Your task to perform on an android device: set an alarm Image 0: 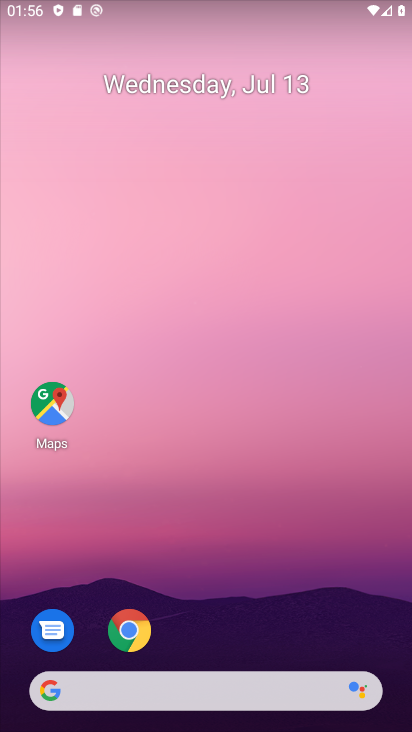
Step 0: drag from (239, 643) to (178, 219)
Your task to perform on an android device: set an alarm Image 1: 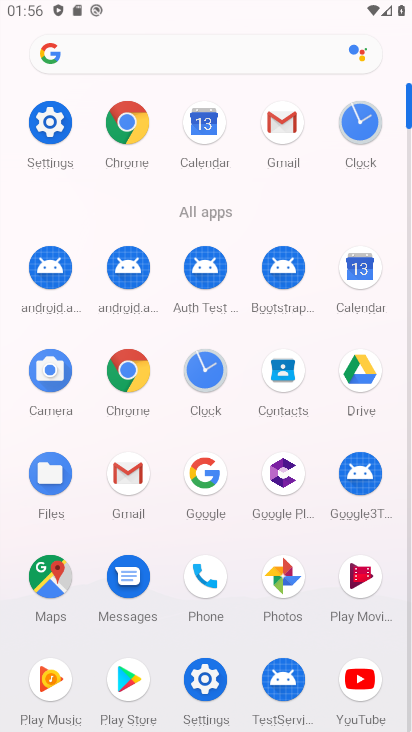
Step 1: click (203, 356)
Your task to perform on an android device: set an alarm Image 2: 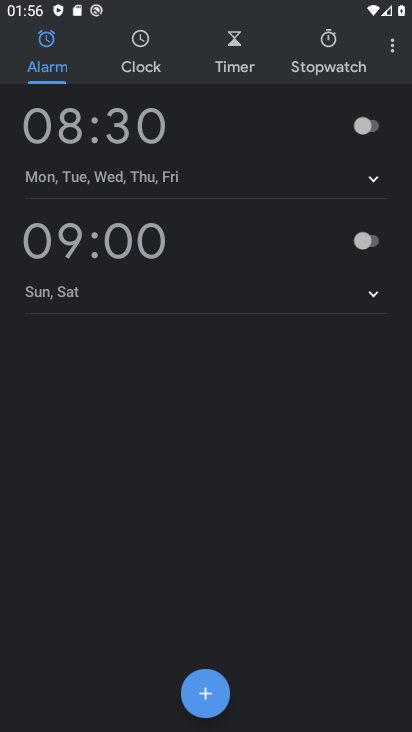
Step 2: click (373, 126)
Your task to perform on an android device: set an alarm Image 3: 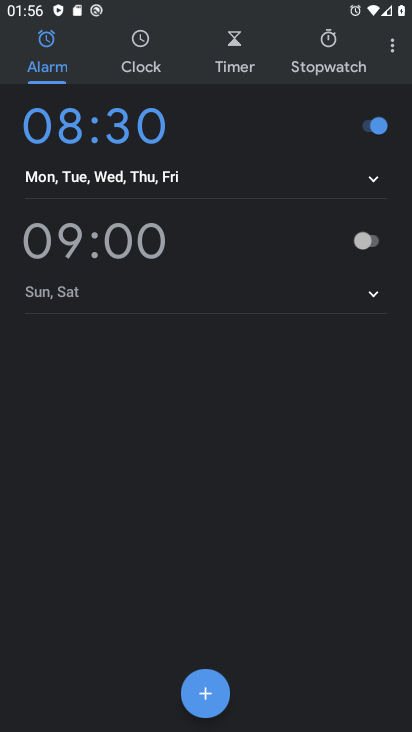
Step 3: task complete